Your task to perform on an android device: delete location history Image 0: 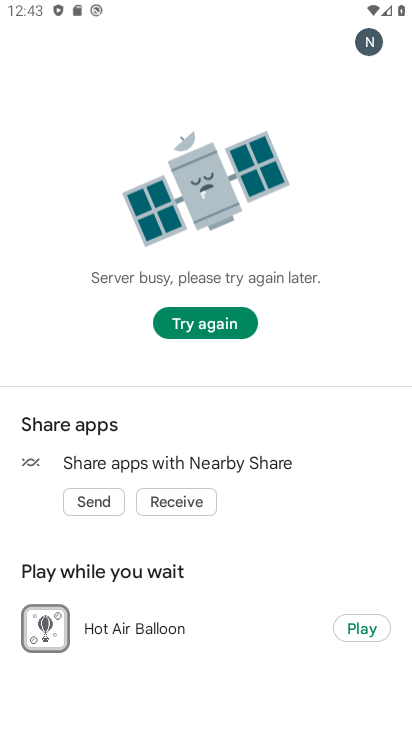
Step 0: press home button
Your task to perform on an android device: delete location history Image 1: 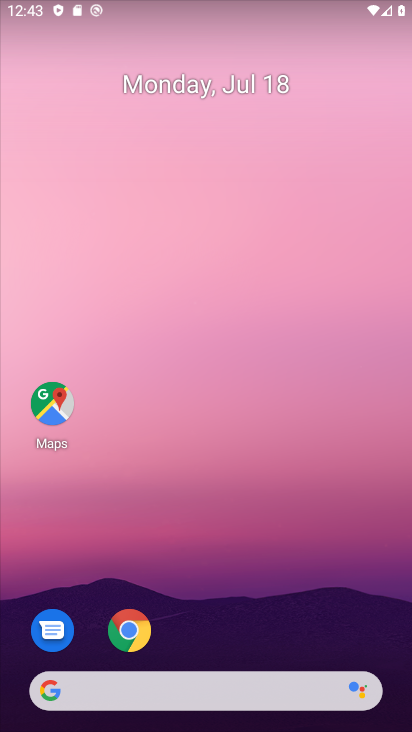
Step 1: click (54, 401)
Your task to perform on an android device: delete location history Image 2: 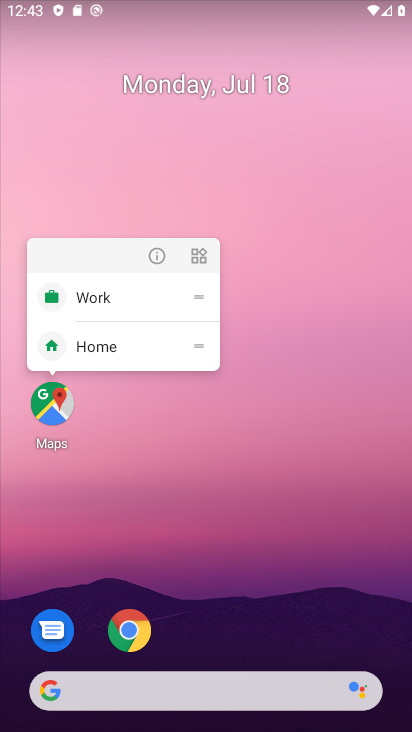
Step 2: click (54, 401)
Your task to perform on an android device: delete location history Image 3: 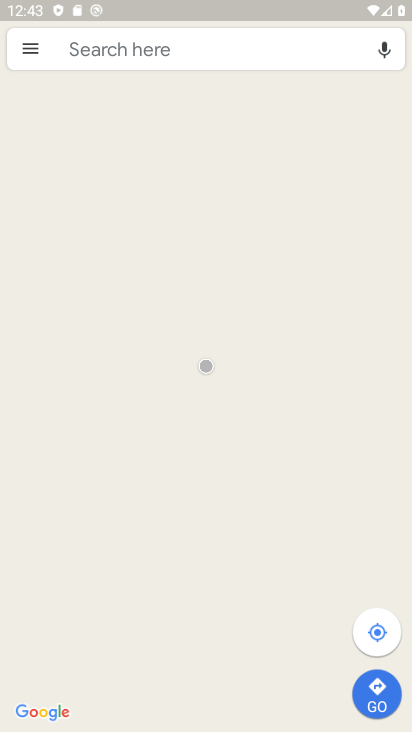
Step 3: click (29, 46)
Your task to perform on an android device: delete location history Image 4: 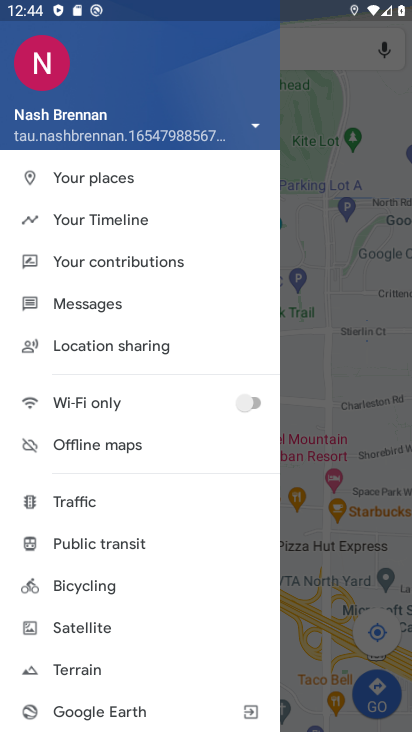
Step 4: click (108, 215)
Your task to perform on an android device: delete location history Image 5: 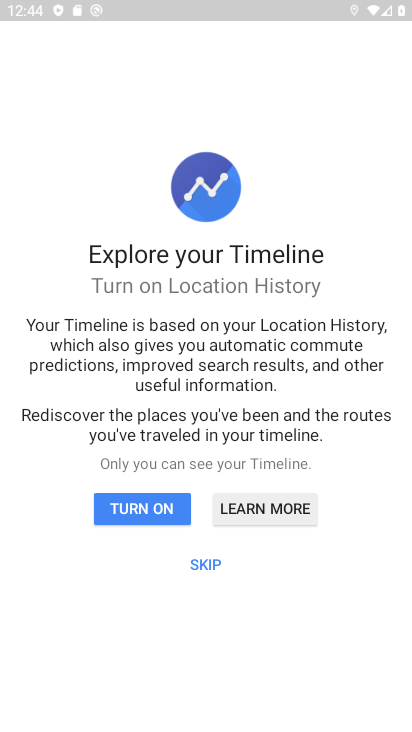
Step 5: click (171, 504)
Your task to perform on an android device: delete location history Image 6: 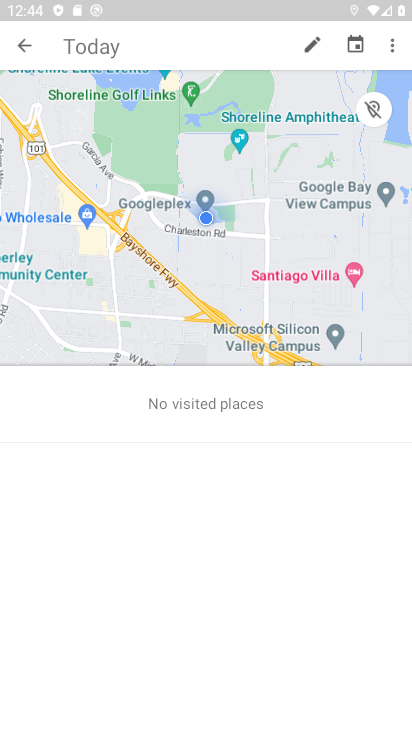
Step 6: click (394, 42)
Your task to perform on an android device: delete location history Image 7: 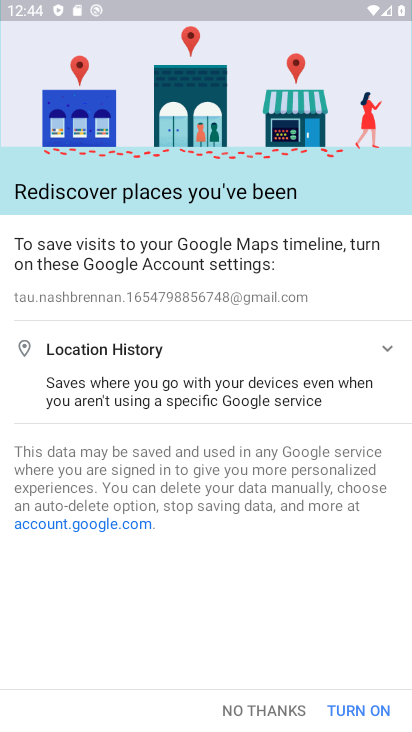
Step 7: click (344, 708)
Your task to perform on an android device: delete location history Image 8: 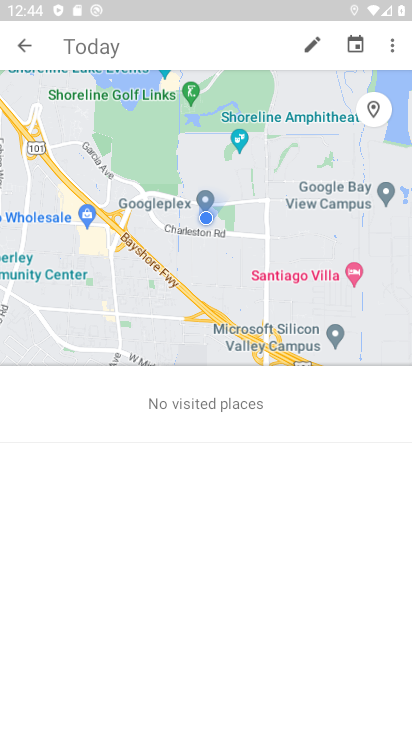
Step 8: click (394, 45)
Your task to perform on an android device: delete location history Image 9: 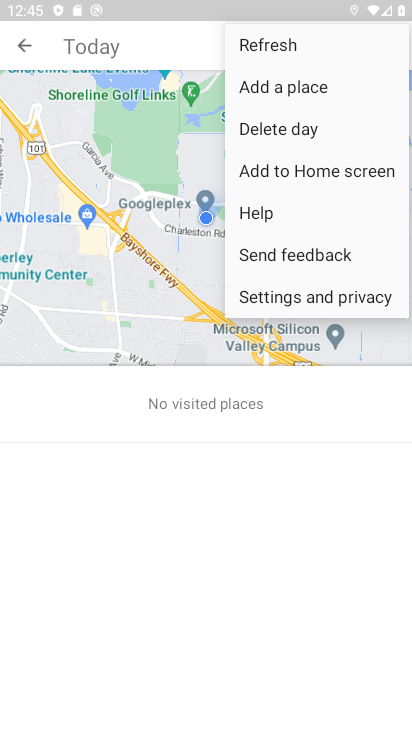
Step 9: click (324, 295)
Your task to perform on an android device: delete location history Image 10: 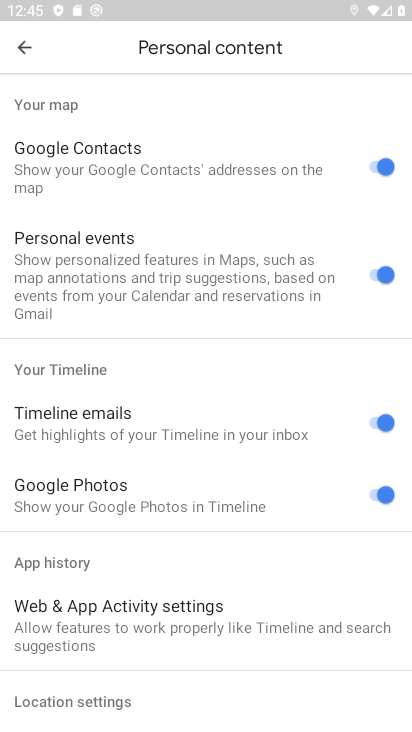
Step 10: drag from (253, 401) to (232, 138)
Your task to perform on an android device: delete location history Image 11: 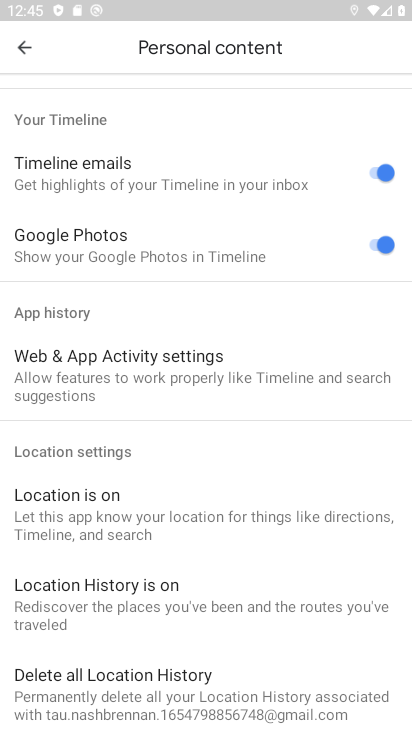
Step 11: drag from (206, 483) to (191, 144)
Your task to perform on an android device: delete location history Image 12: 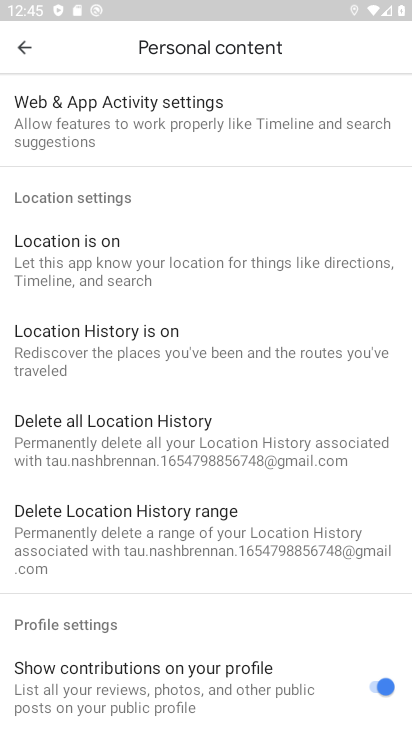
Step 12: click (233, 443)
Your task to perform on an android device: delete location history Image 13: 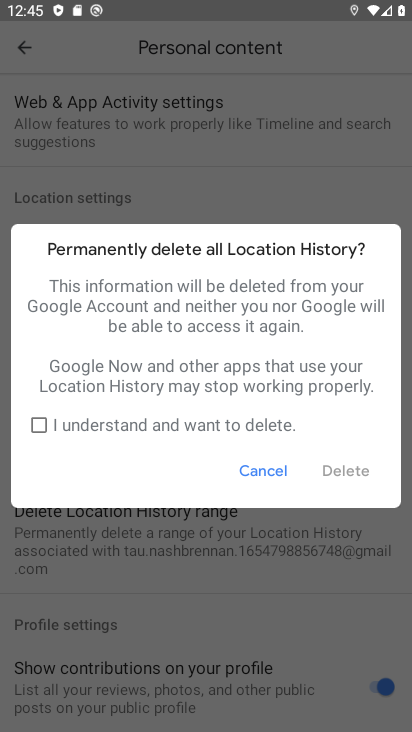
Step 13: click (38, 419)
Your task to perform on an android device: delete location history Image 14: 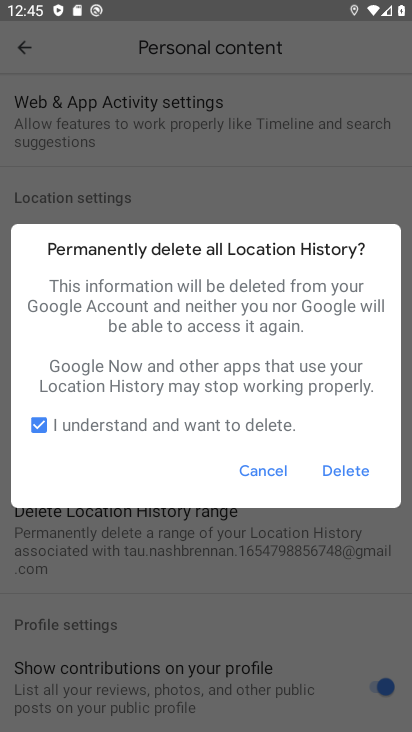
Step 14: click (365, 463)
Your task to perform on an android device: delete location history Image 15: 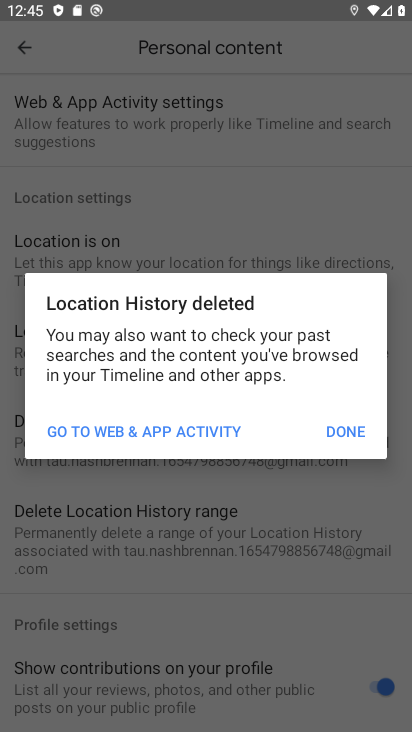
Step 15: click (357, 428)
Your task to perform on an android device: delete location history Image 16: 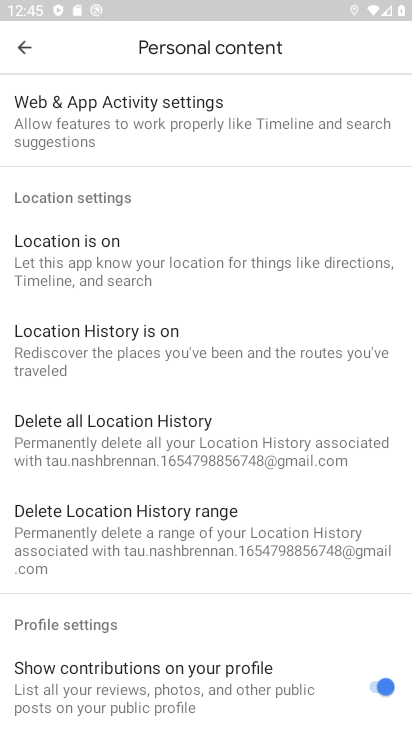
Step 16: task complete